Your task to perform on an android device: Go to accessibility settings Image 0: 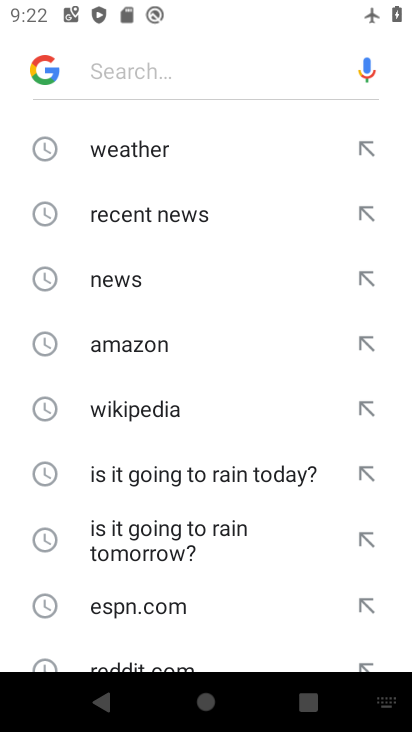
Step 0: press back button
Your task to perform on an android device: Go to accessibility settings Image 1: 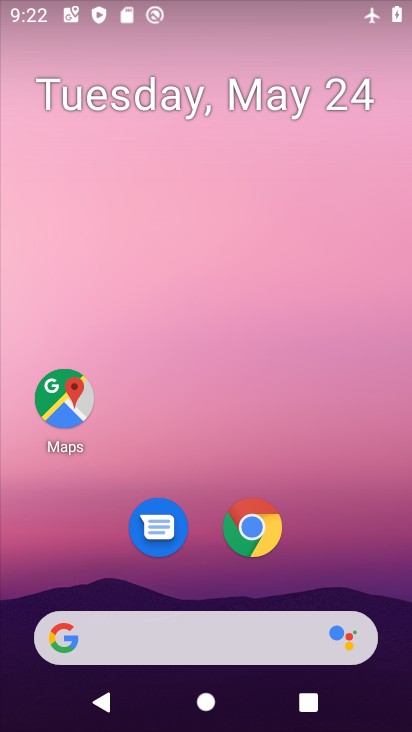
Step 1: drag from (8, 217) to (368, 193)
Your task to perform on an android device: Go to accessibility settings Image 2: 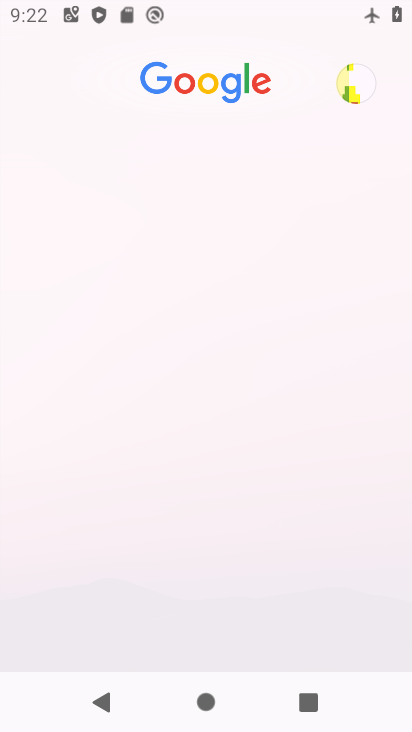
Step 2: press home button
Your task to perform on an android device: Go to accessibility settings Image 3: 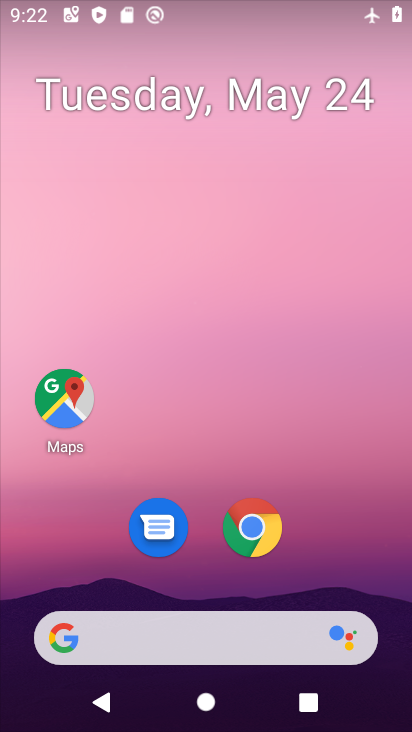
Step 3: drag from (391, 685) to (287, 107)
Your task to perform on an android device: Go to accessibility settings Image 4: 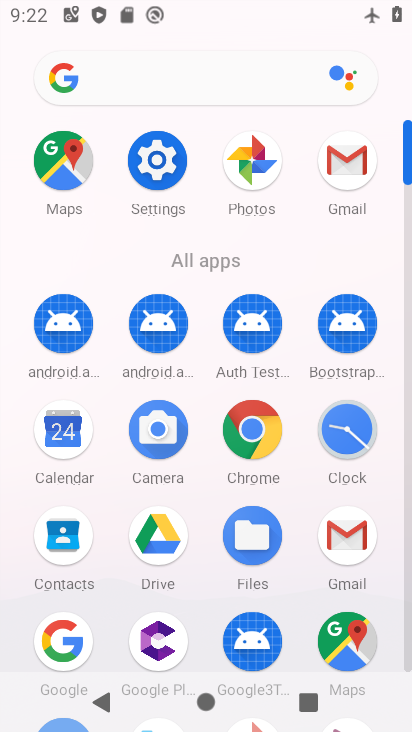
Step 4: click (132, 154)
Your task to perform on an android device: Go to accessibility settings Image 5: 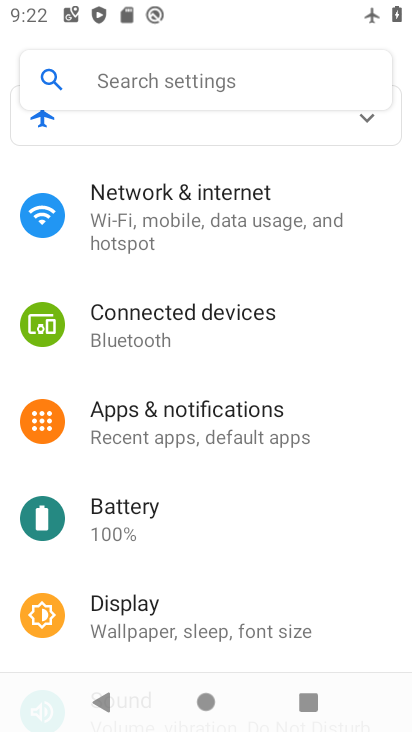
Step 5: drag from (324, 638) to (257, 116)
Your task to perform on an android device: Go to accessibility settings Image 6: 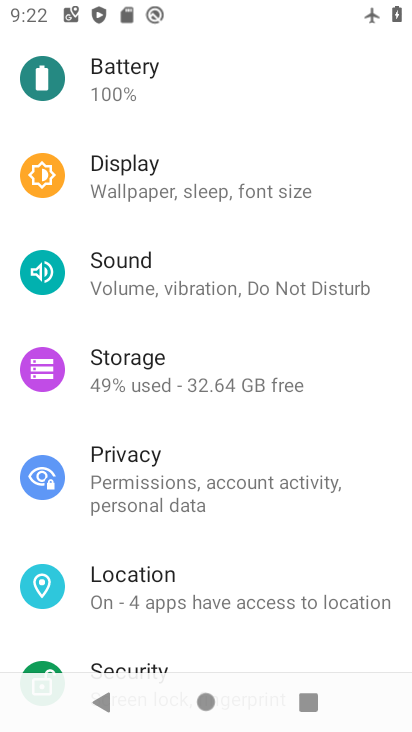
Step 6: drag from (321, 632) to (300, 122)
Your task to perform on an android device: Go to accessibility settings Image 7: 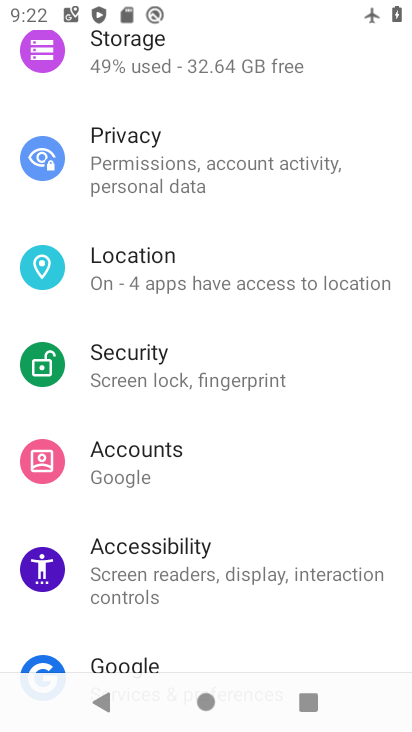
Step 7: click (113, 556)
Your task to perform on an android device: Go to accessibility settings Image 8: 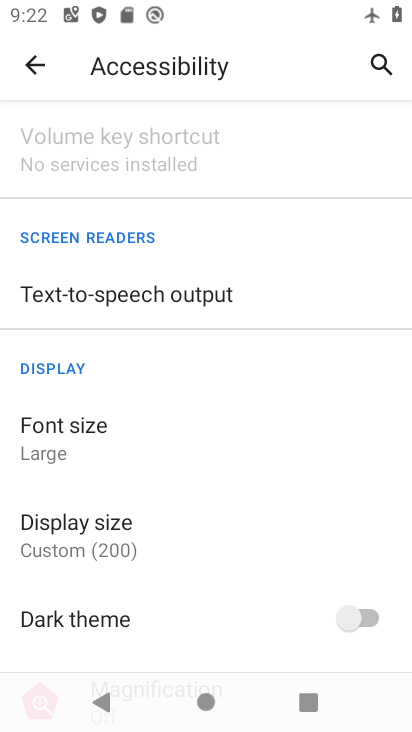
Step 8: task complete